Your task to perform on an android device: turn on the 12-hour format for clock Image 0: 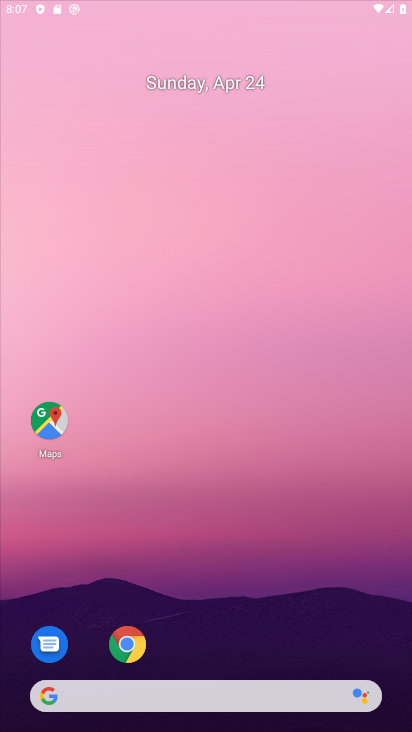
Step 0: click (235, 172)
Your task to perform on an android device: turn on the 12-hour format for clock Image 1: 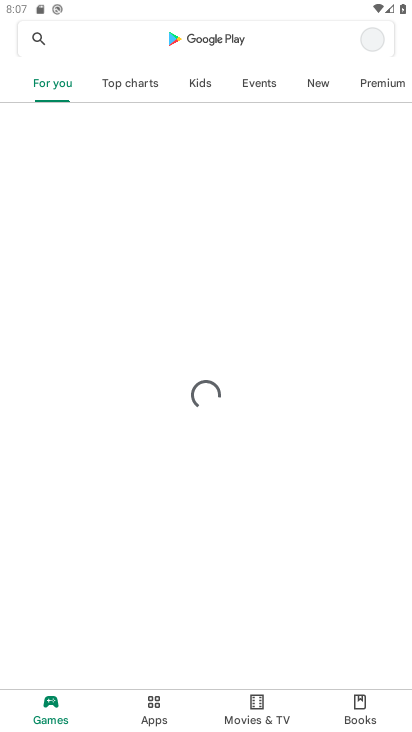
Step 1: press home button
Your task to perform on an android device: turn on the 12-hour format for clock Image 2: 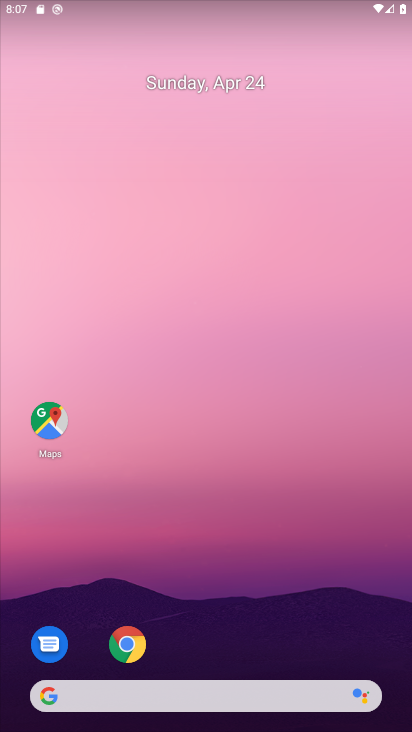
Step 2: drag from (188, 641) to (278, 195)
Your task to perform on an android device: turn on the 12-hour format for clock Image 3: 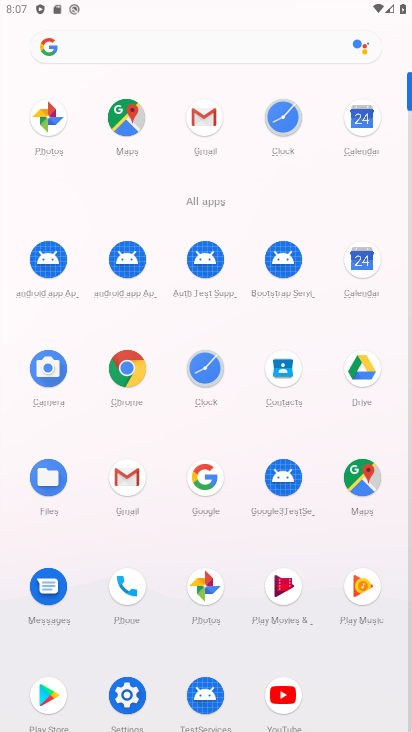
Step 3: click (357, 253)
Your task to perform on an android device: turn on the 12-hour format for clock Image 4: 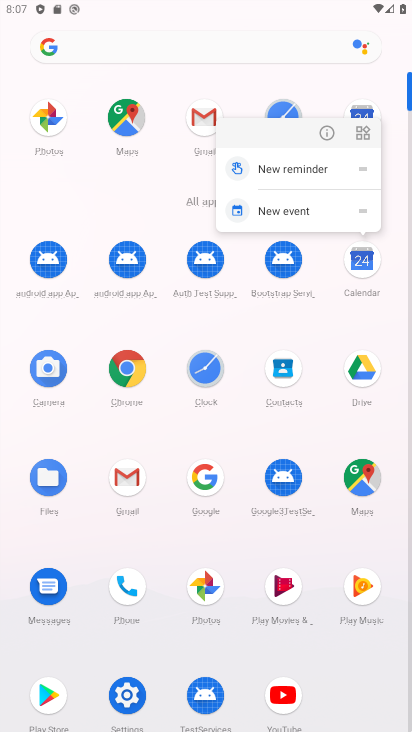
Step 4: drag from (251, 372) to (269, 216)
Your task to perform on an android device: turn on the 12-hour format for clock Image 5: 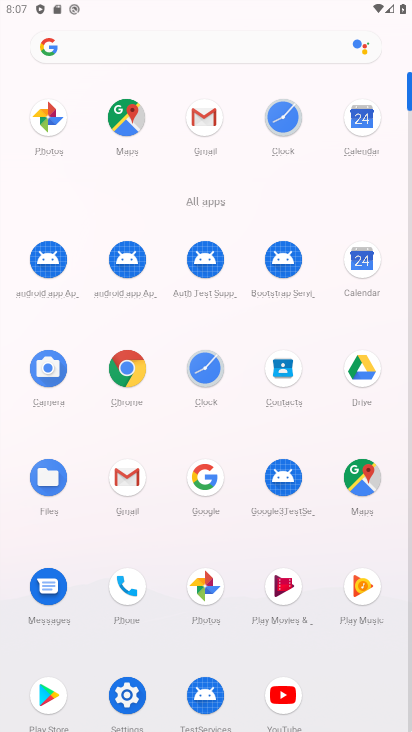
Step 5: click (208, 373)
Your task to perform on an android device: turn on the 12-hour format for clock Image 6: 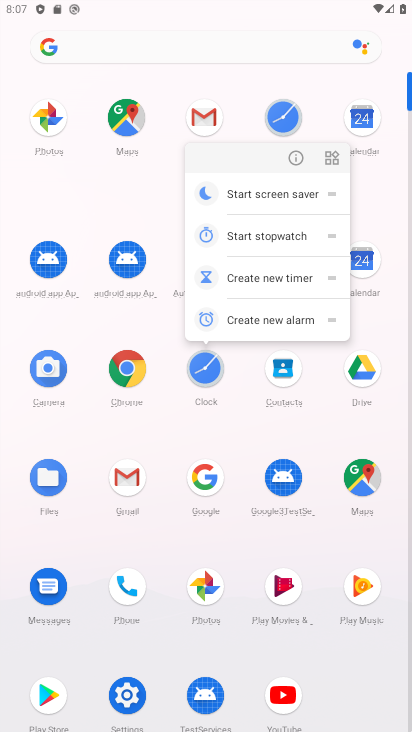
Step 6: click (288, 162)
Your task to perform on an android device: turn on the 12-hour format for clock Image 7: 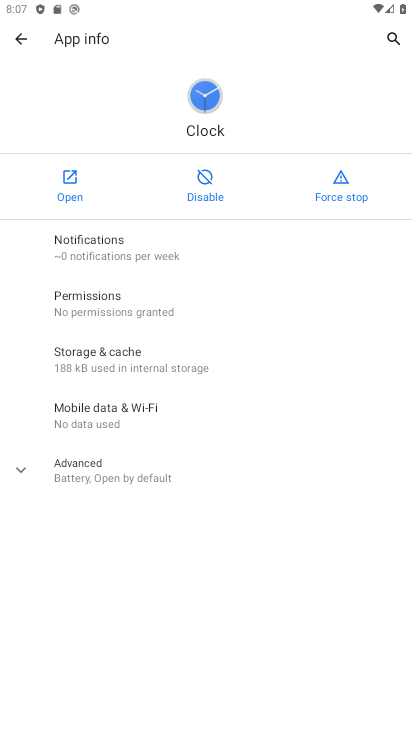
Step 7: click (66, 191)
Your task to perform on an android device: turn on the 12-hour format for clock Image 8: 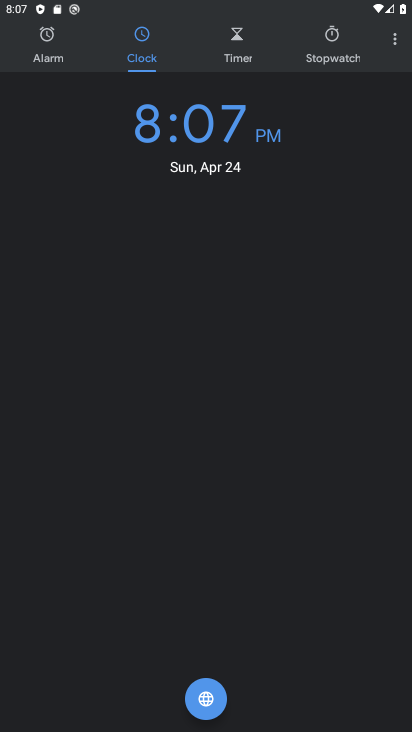
Step 8: drag from (389, 52) to (344, 85)
Your task to perform on an android device: turn on the 12-hour format for clock Image 9: 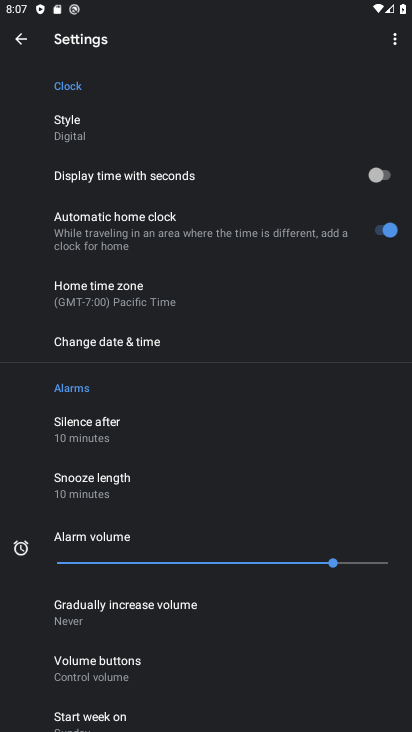
Step 9: drag from (192, 598) to (273, 192)
Your task to perform on an android device: turn on the 12-hour format for clock Image 10: 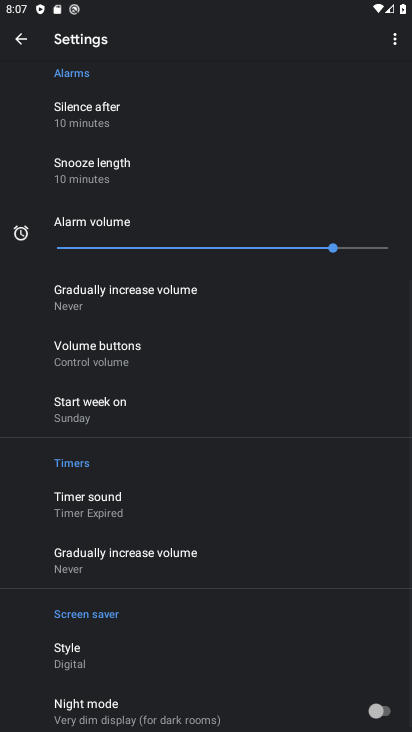
Step 10: drag from (242, 171) to (243, 462)
Your task to perform on an android device: turn on the 12-hour format for clock Image 11: 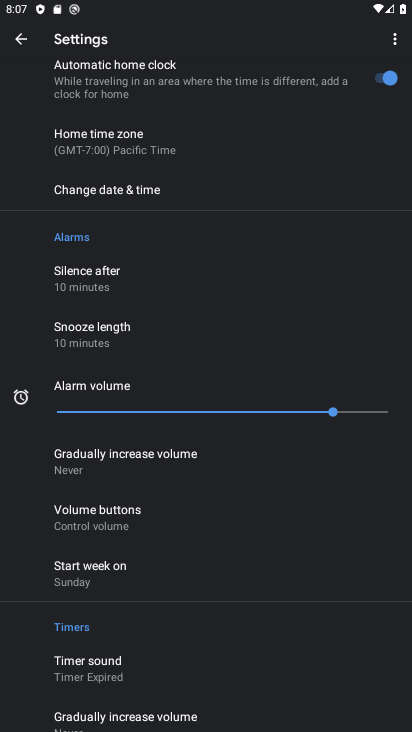
Step 11: click (132, 191)
Your task to perform on an android device: turn on the 12-hour format for clock Image 12: 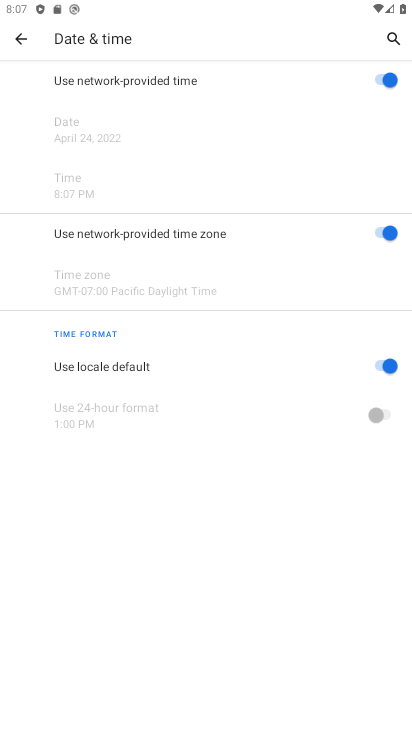
Step 12: click (381, 363)
Your task to perform on an android device: turn on the 12-hour format for clock Image 13: 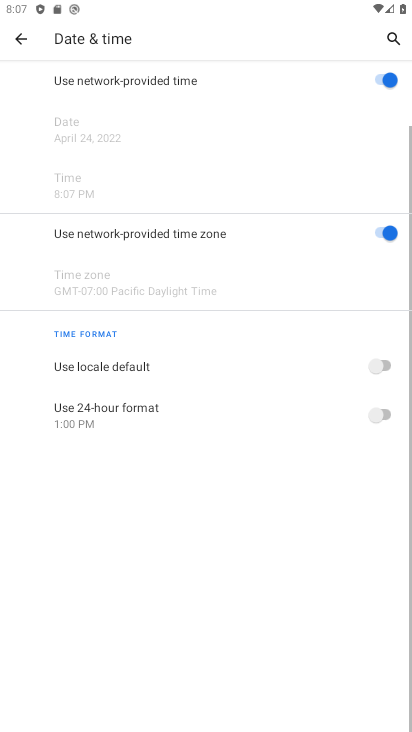
Step 13: click (378, 357)
Your task to perform on an android device: turn on the 12-hour format for clock Image 14: 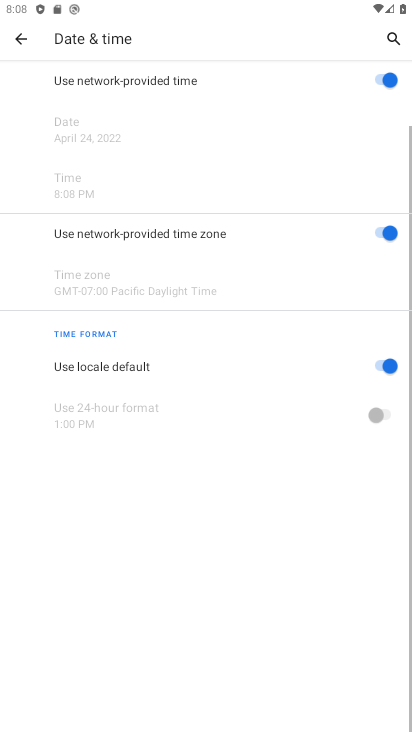
Step 14: task complete